Your task to perform on an android device: Search for macbook pro on newegg, select the first entry, add it to the cart, then select checkout. Image 0: 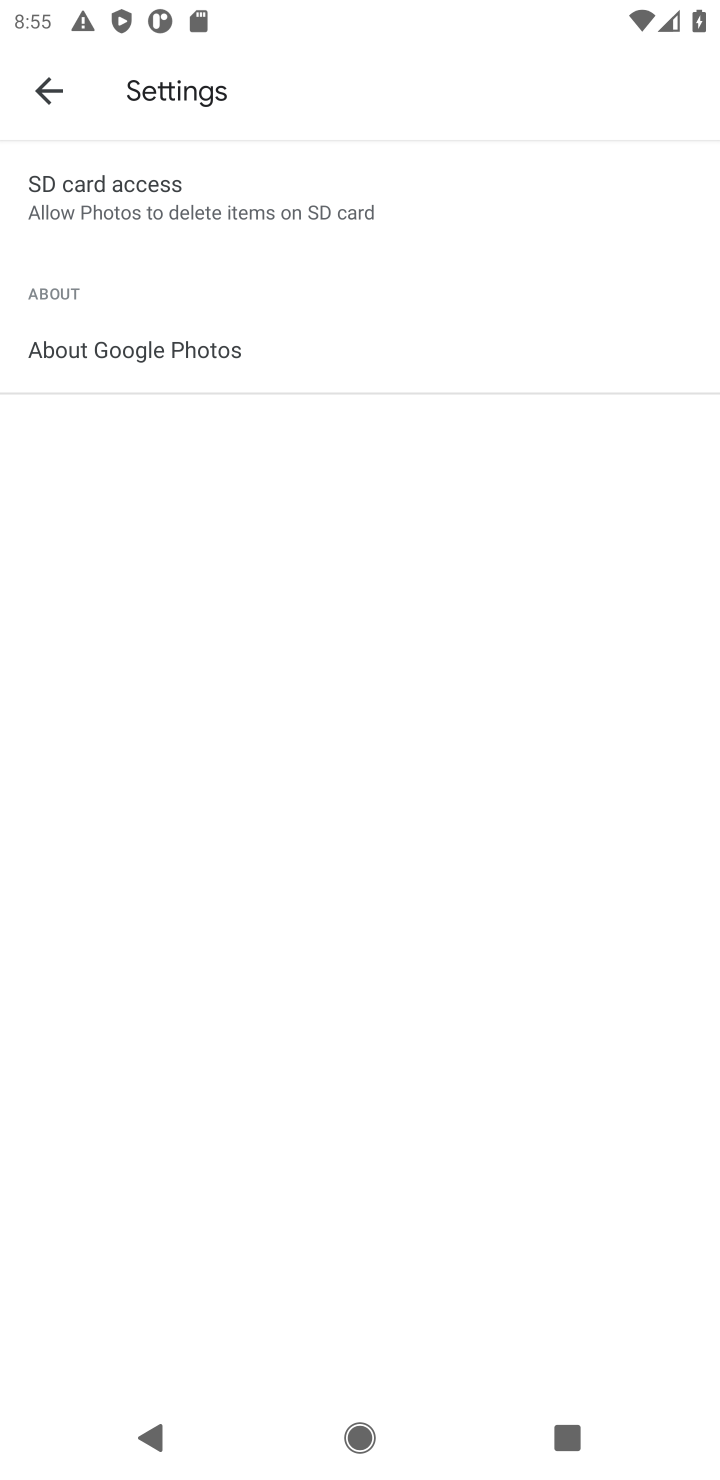
Step 0: press home button
Your task to perform on an android device: Search for macbook pro on newegg, select the first entry, add it to the cart, then select checkout. Image 1: 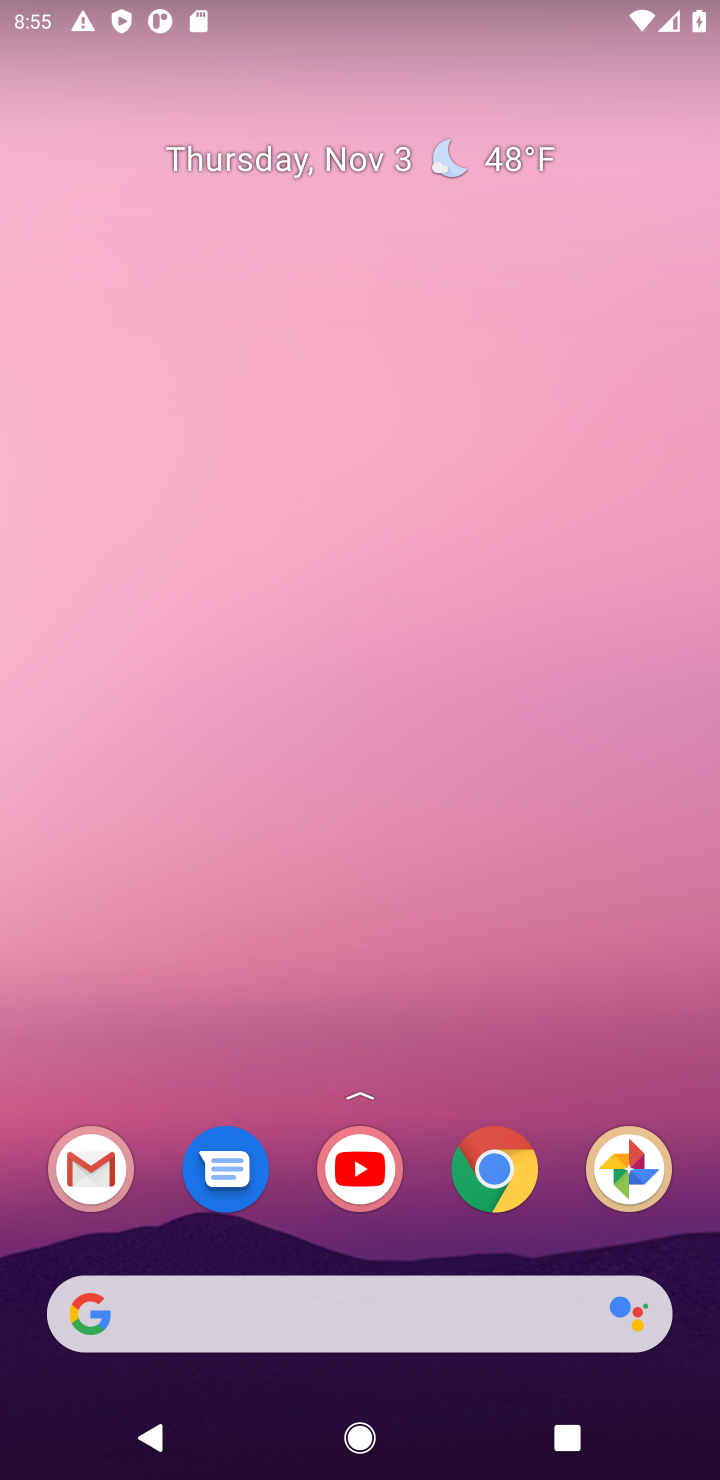
Step 1: drag from (403, 1234) to (487, 258)
Your task to perform on an android device: Search for macbook pro on newegg, select the first entry, add it to the cart, then select checkout. Image 2: 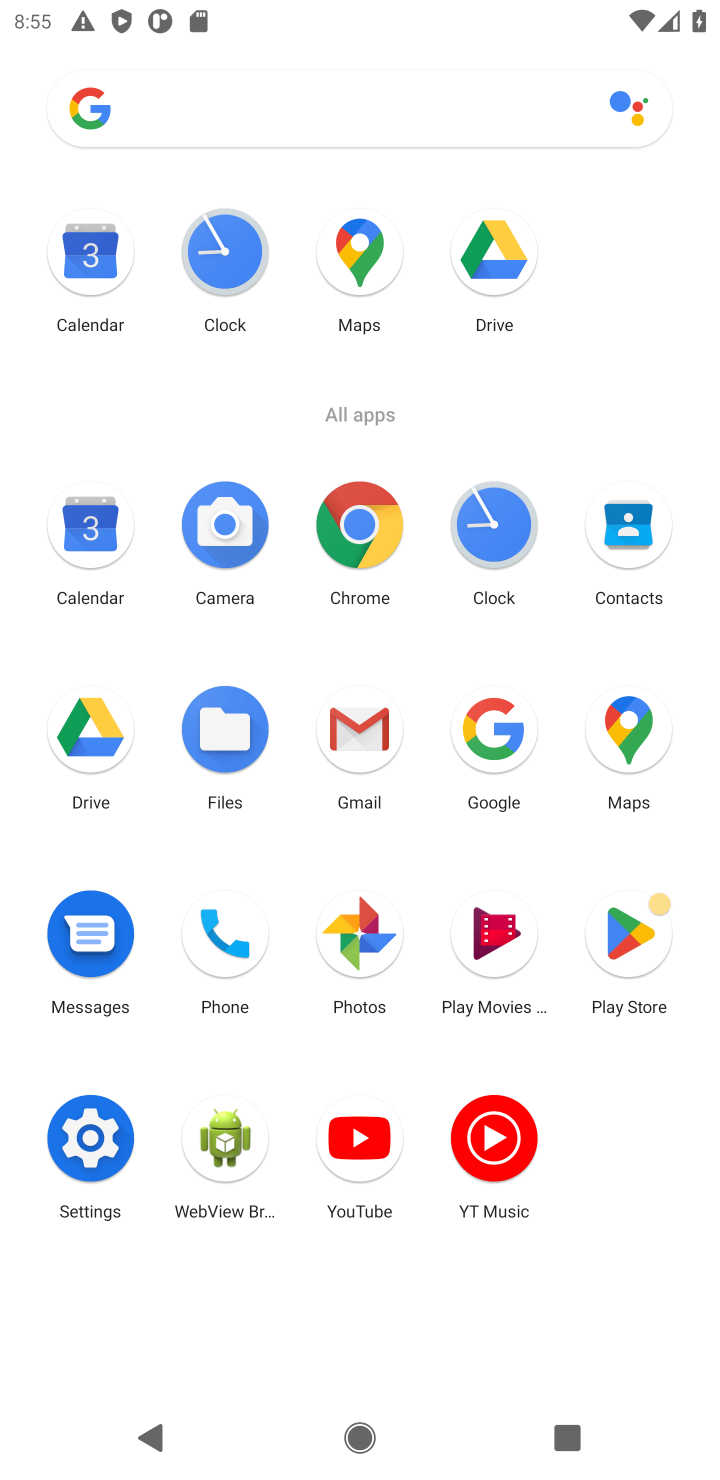
Step 2: click (353, 532)
Your task to perform on an android device: Search for macbook pro on newegg, select the first entry, add it to the cart, then select checkout. Image 3: 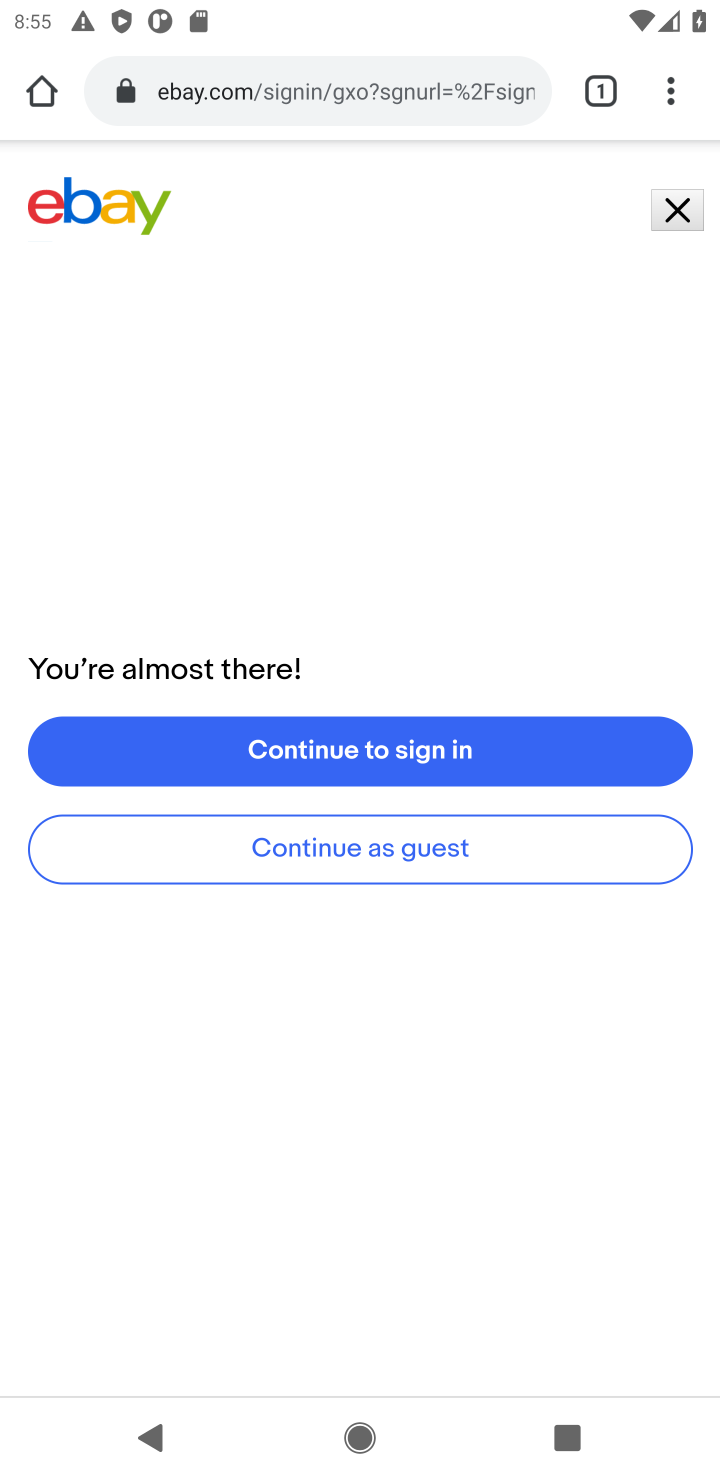
Step 3: click (416, 98)
Your task to perform on an android device: Search for macbook pro on newegg, select the first entry, add it to the cart, then select checkout. Image 4: 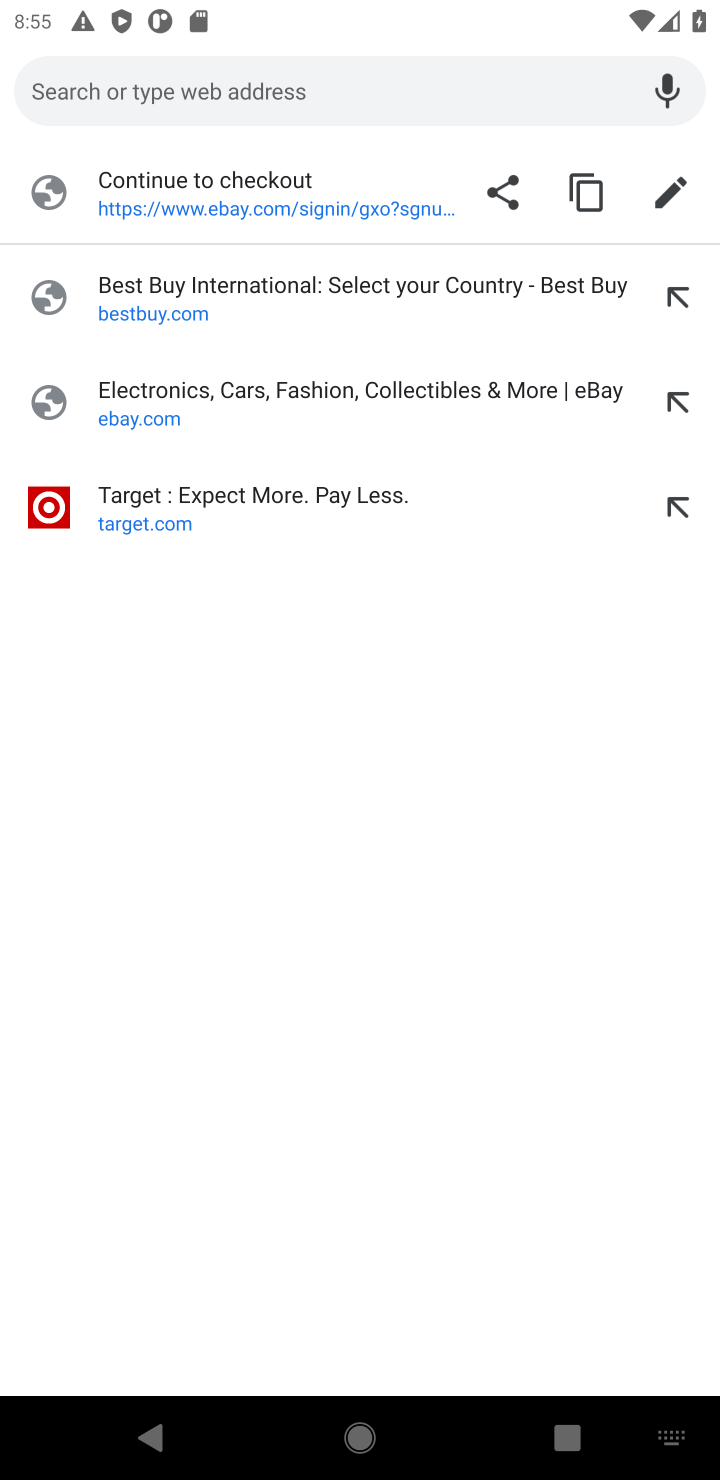
Step 4: type "newegg.com"
Your task to perform on an android device: Search for macbook pro on newegg, select the first entry, add it to the cart, then select checkout. Image 5: 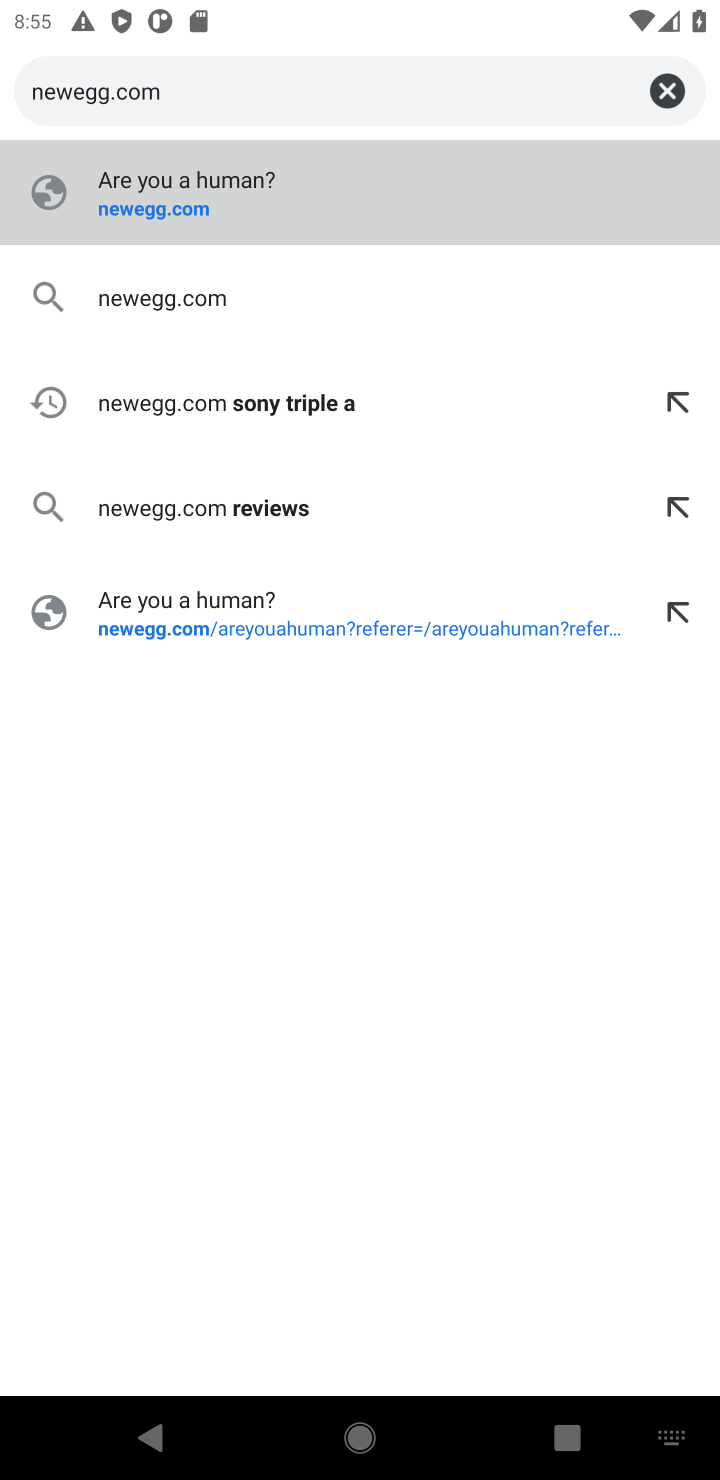
Step 5: press enter
Your task to perform on an android device: Search for macbook pro on newegg, select the first entry, add it to the cart, then select checkout. Image 6: 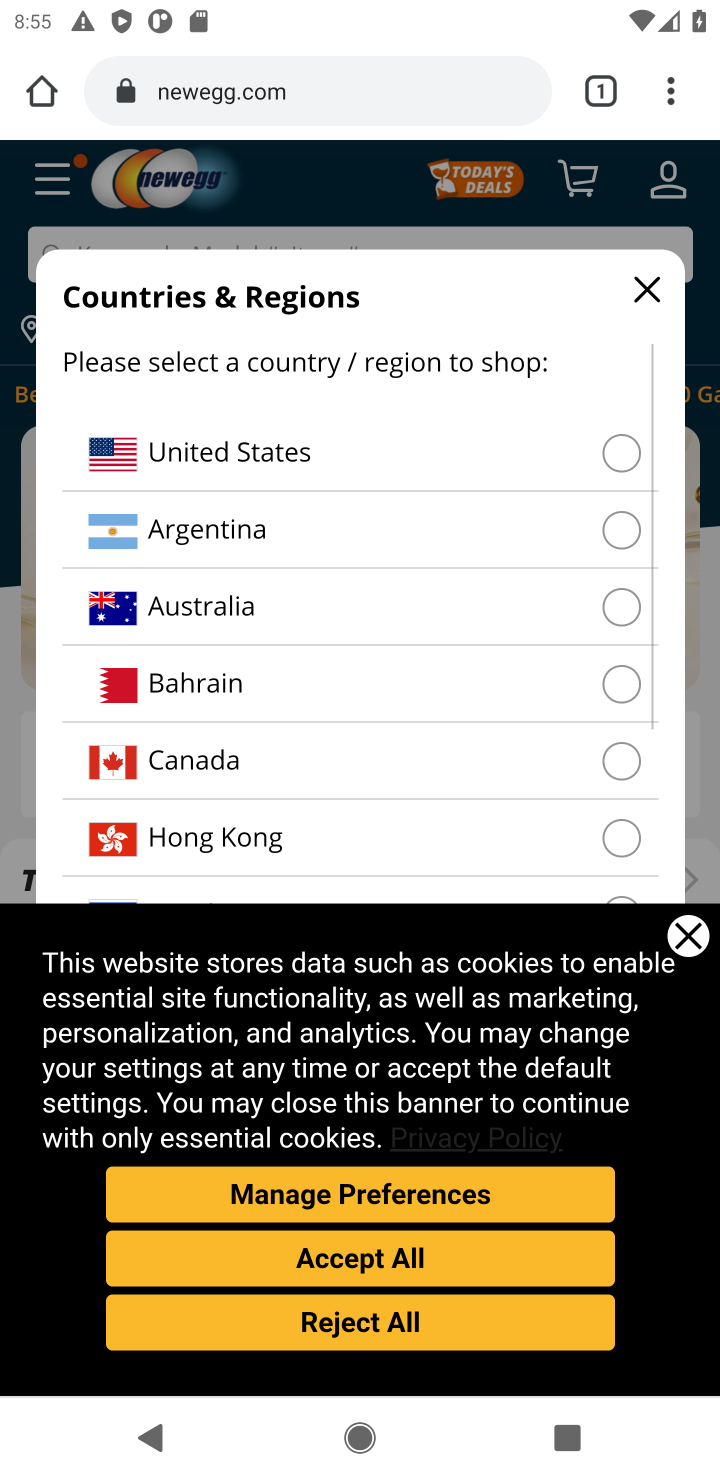
Step 6: click (654, 293)
Your task to perform on an android device: Search for macbook pro on newegg, select the first entry, add it to the cart, then select checkout. Image 7: 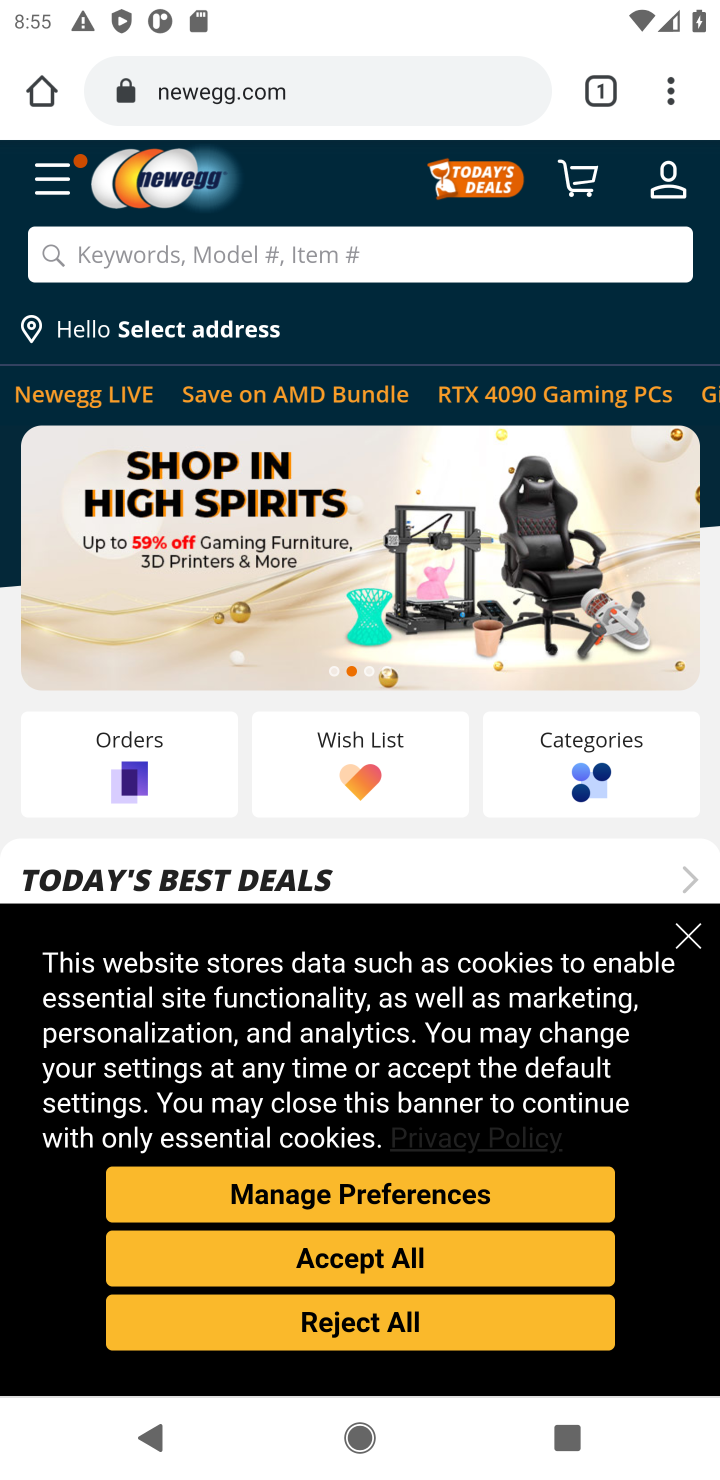
Step 7: click (535, 258)
Your task to perform on an android device: Search for macbook pro on newegg, select the first entry, add it to the cart, then select checkout. Image 8: 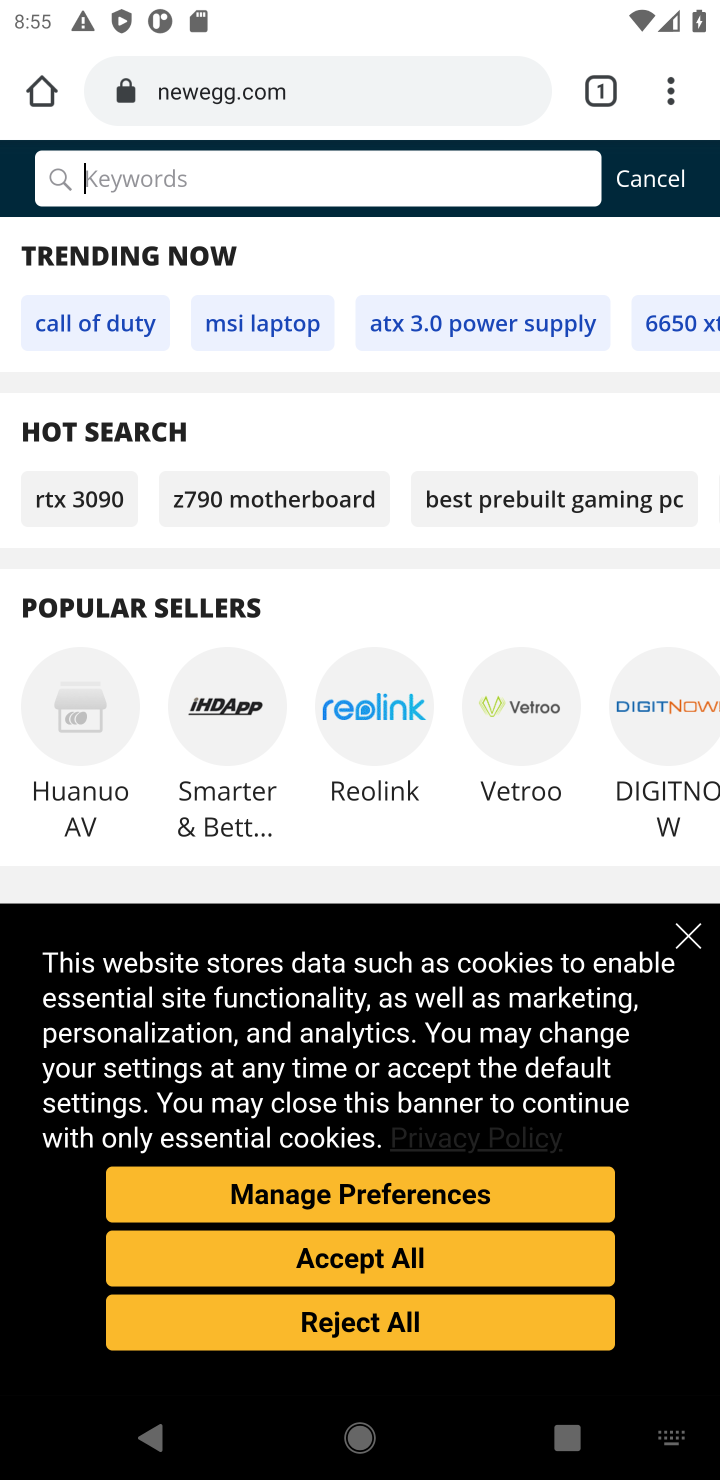
Step 8: type "macbook pro"
Your task to perform on an android device: Search for macbook pro on newegg, select the first entry, add it to the cart, then select checkout. Image 9: 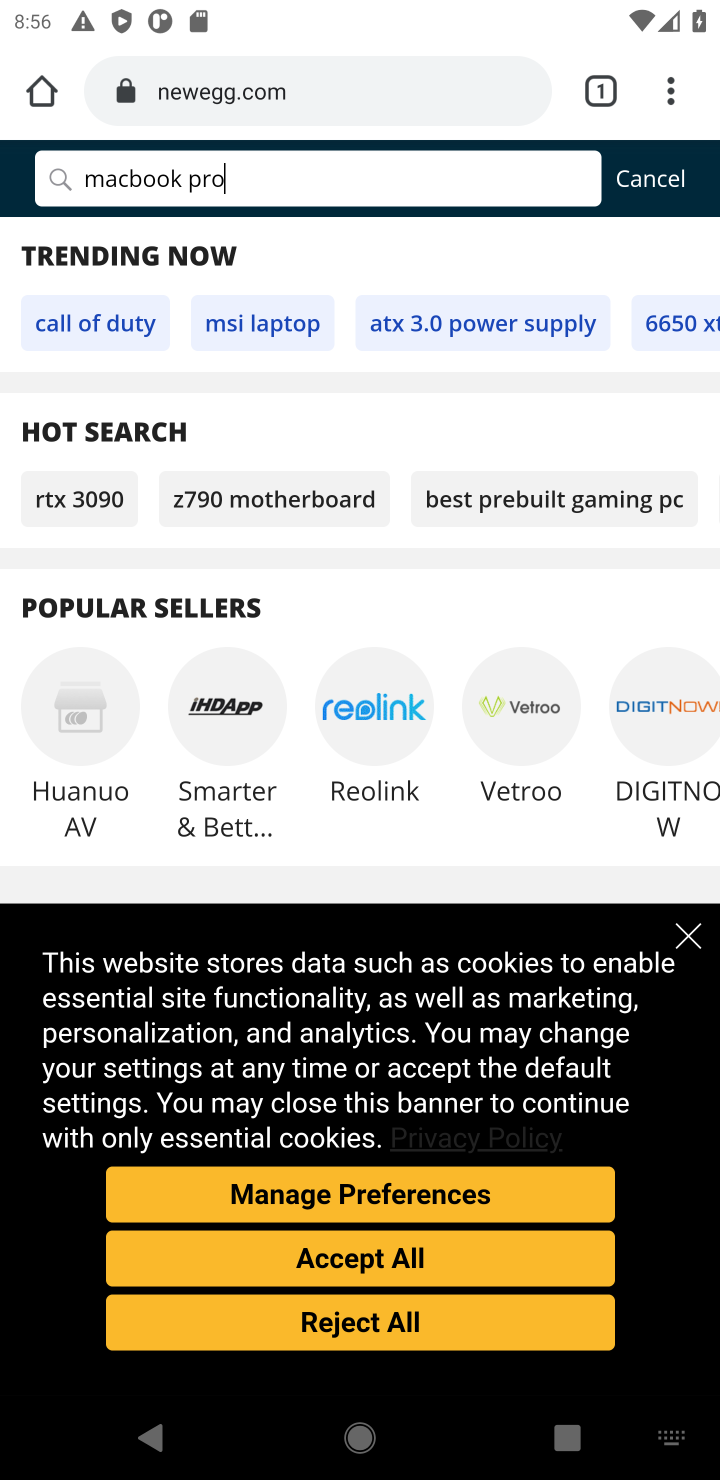
Step 9: press enter
Your task to perform on an android device: Search for macbook pro on newegg, select the first entry, add it to the cart, then select checkout. Image 10: 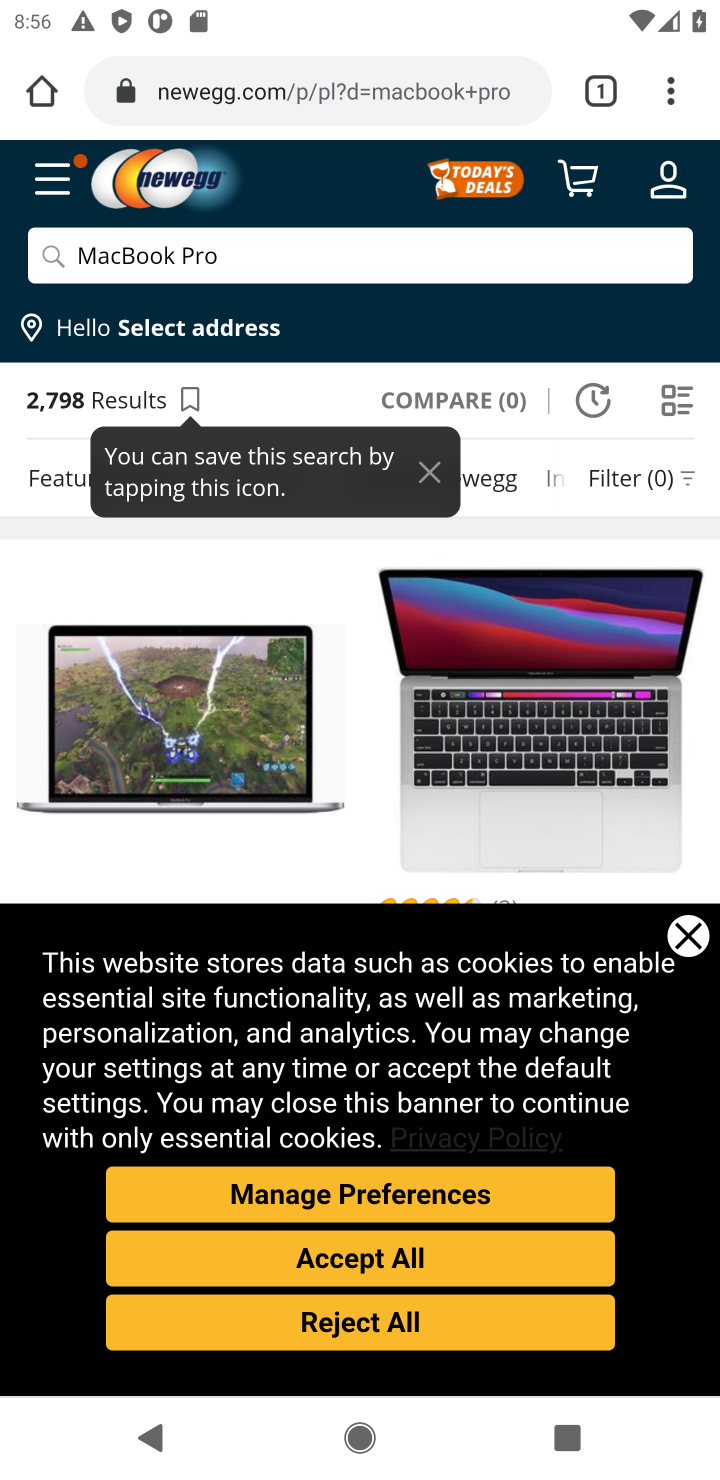
Step 10: drag from (459, 574) to (470, 376)
Your task to perform on an android device: Search for macbook pro on newegg, select the first entry, add it to the cart, then select checkout. Image 11: 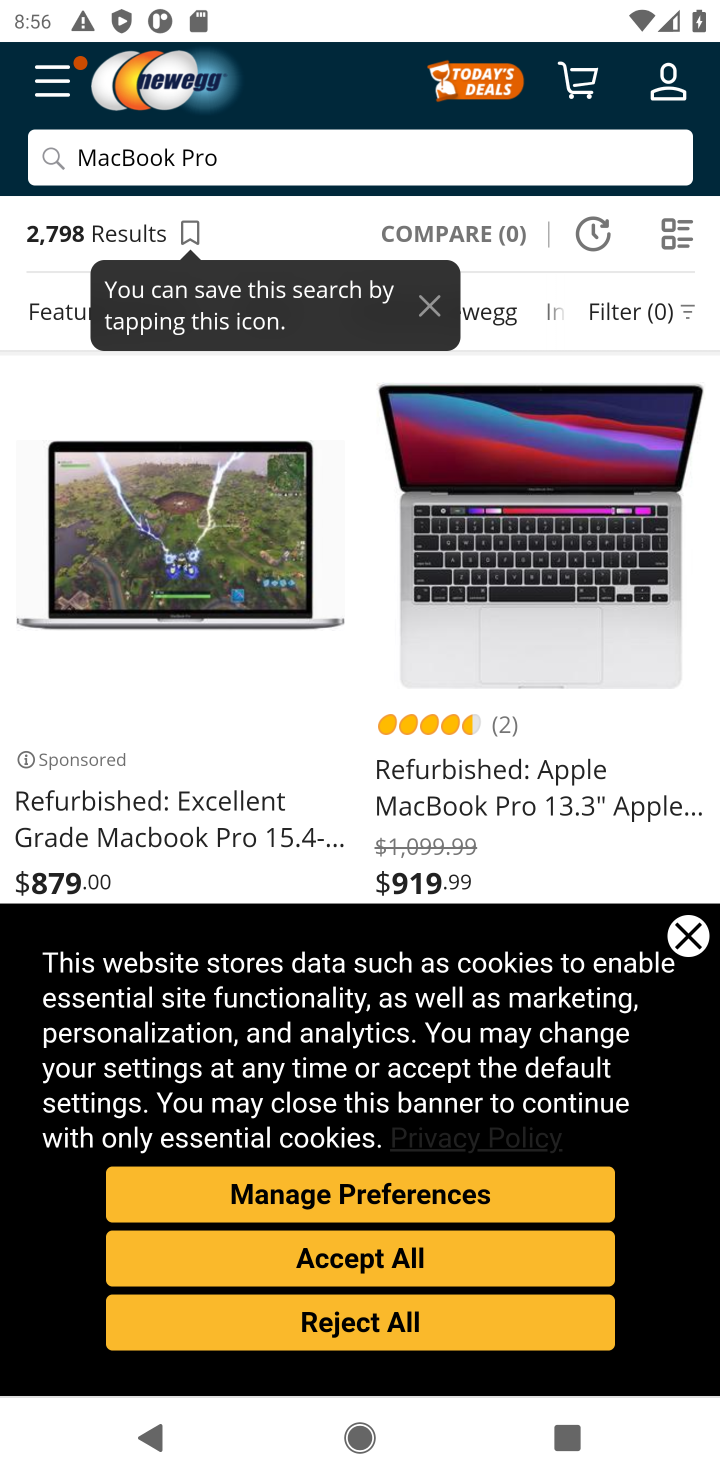
Step 11: click (480, 788)
Your task to perform on an android device: Search for macbook pro on newegg, select the first entry, add it to the cart, then select checkout. Image 12: 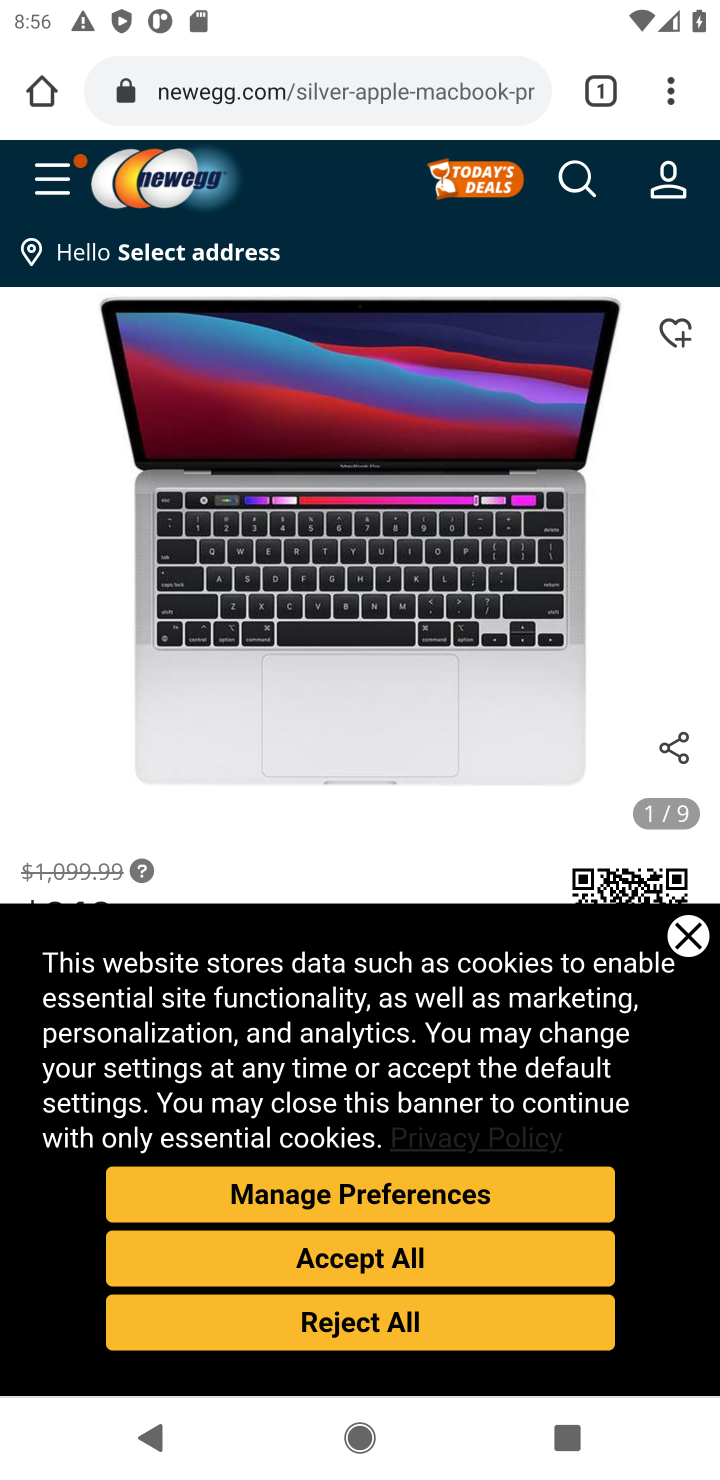
Step 12: click (702, 920)
Your task to perform on an android device: Search for macbook pro on newegg, select the first entry, add it to the cart, then select checkout. Image 13: 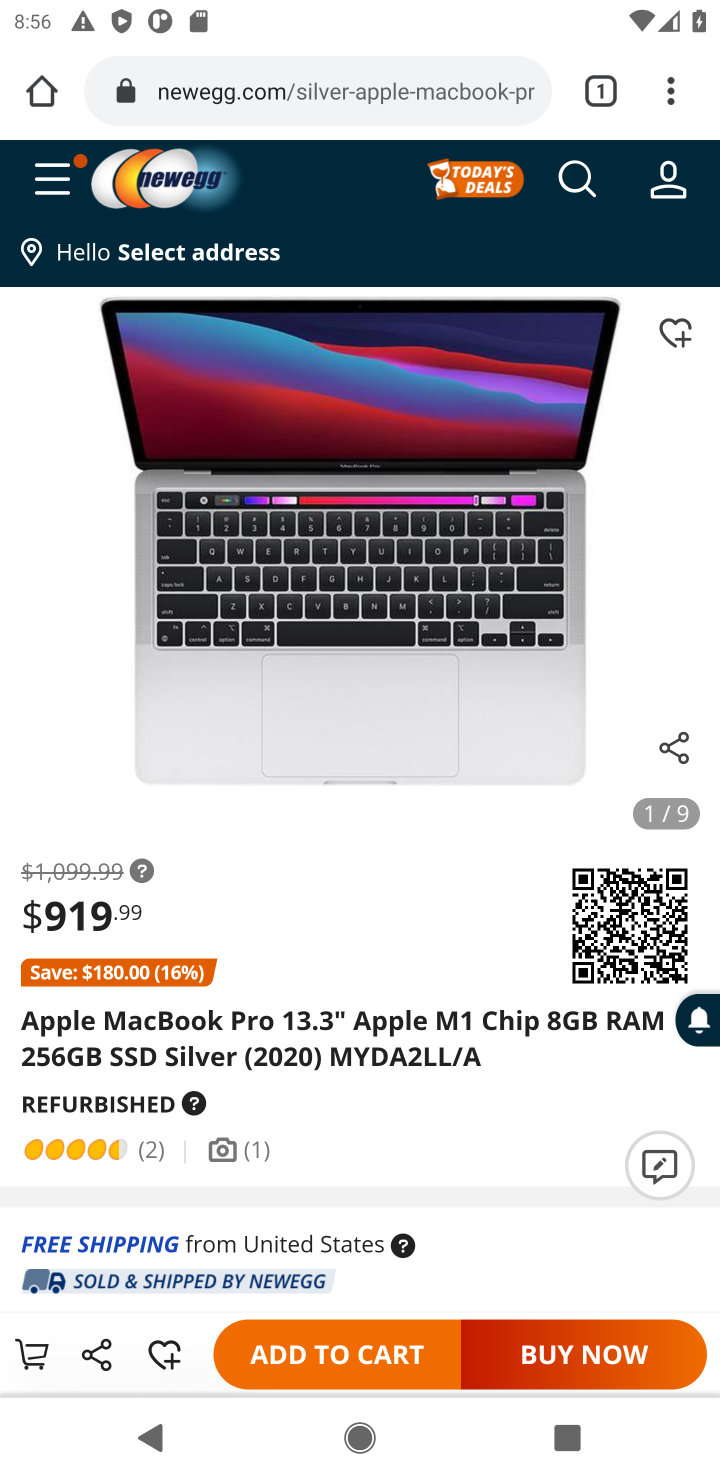
Step 13: click (405, 1320)
Your task to perform on an android device: Search for macbook pro on newegg, select the first entry, add it to the cart, then select checkout. Image 14: 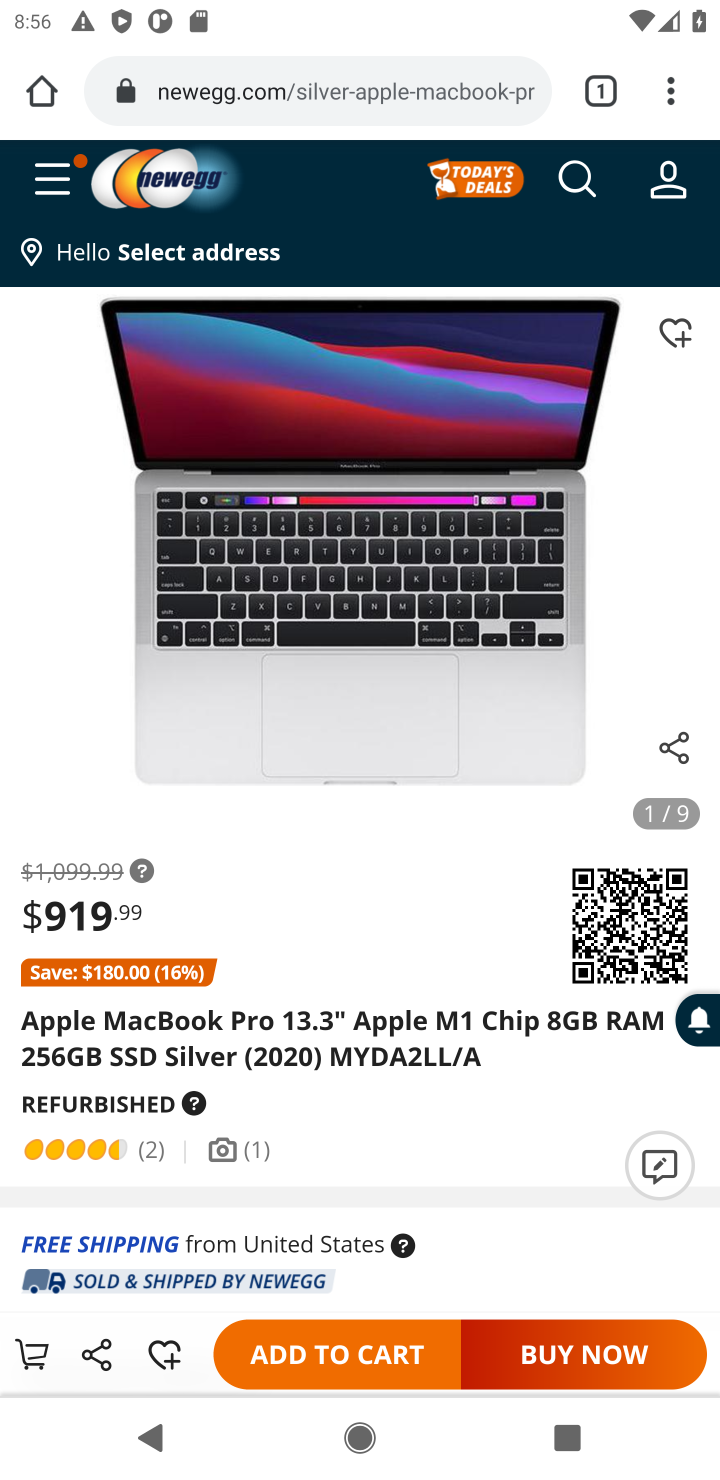
Step 14: click (327, 1369)
Your task to perform on an android device: Search for macbook pro on newegg, select the first entry, add it to the cart, then select checkout. Image 15: 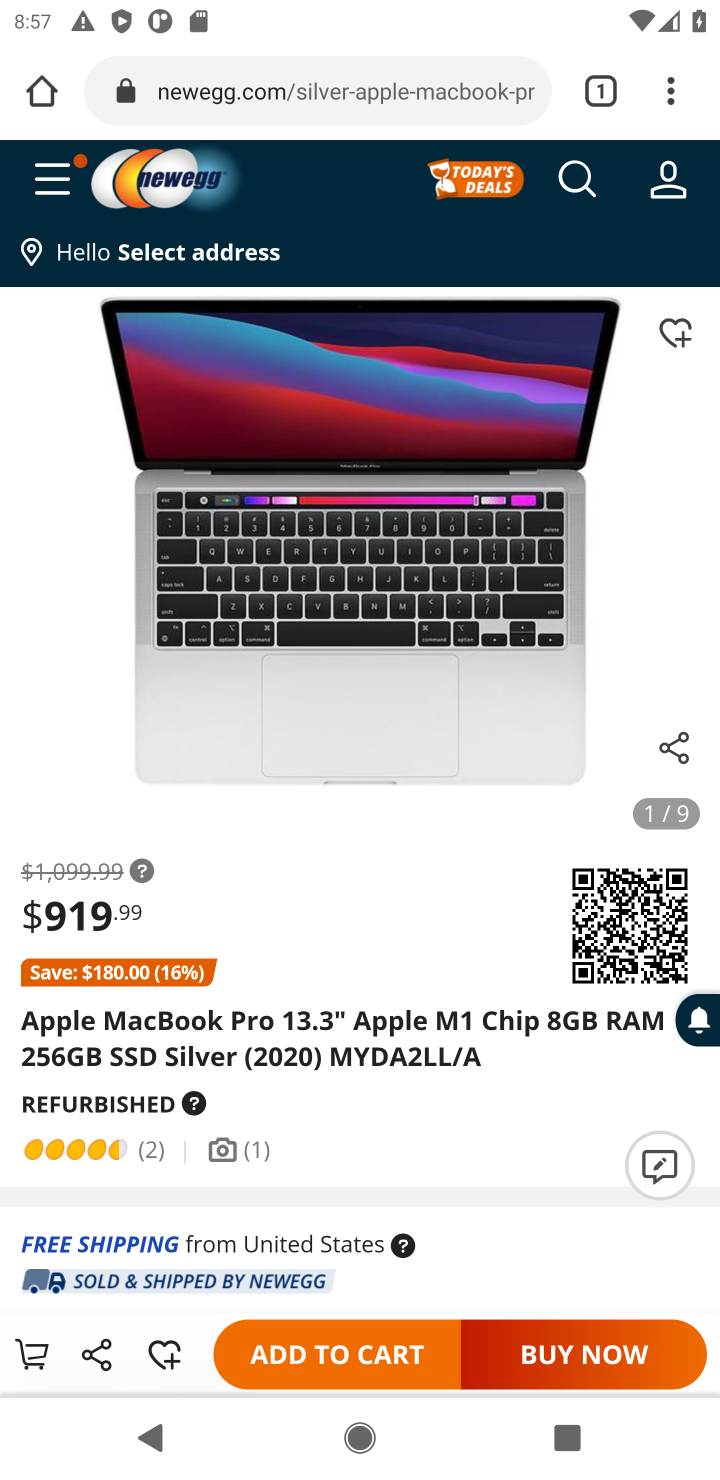
Step 15: click (392, 1351)
Your task to perform on an android device: Search for macbook pro on newegg, select the first entry, add it to the cart, then select checkout. Image 16: 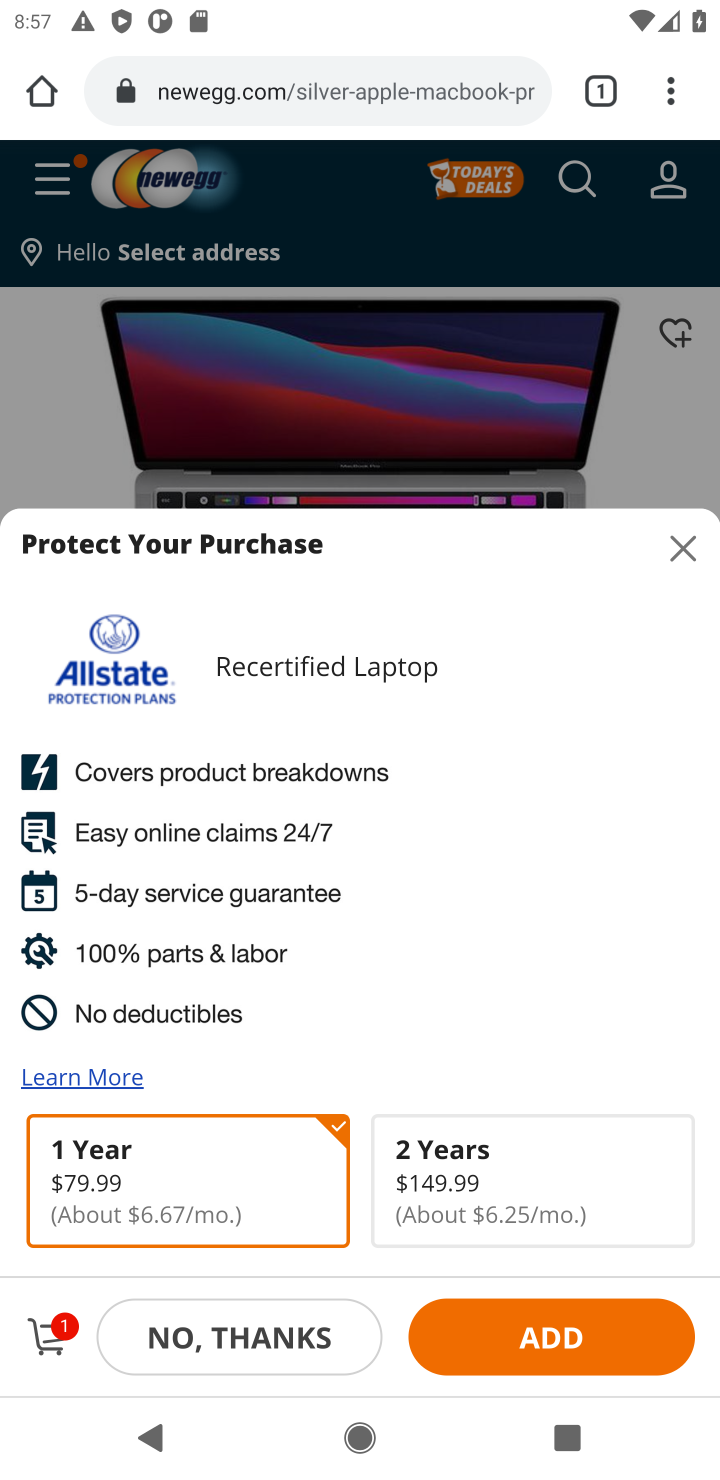
Step 16: click (58, 1338)
Your task to perform on an android device: Search for macbook pro on newegg, select the first entry, add it to the cart, then select checkout. Image 17: 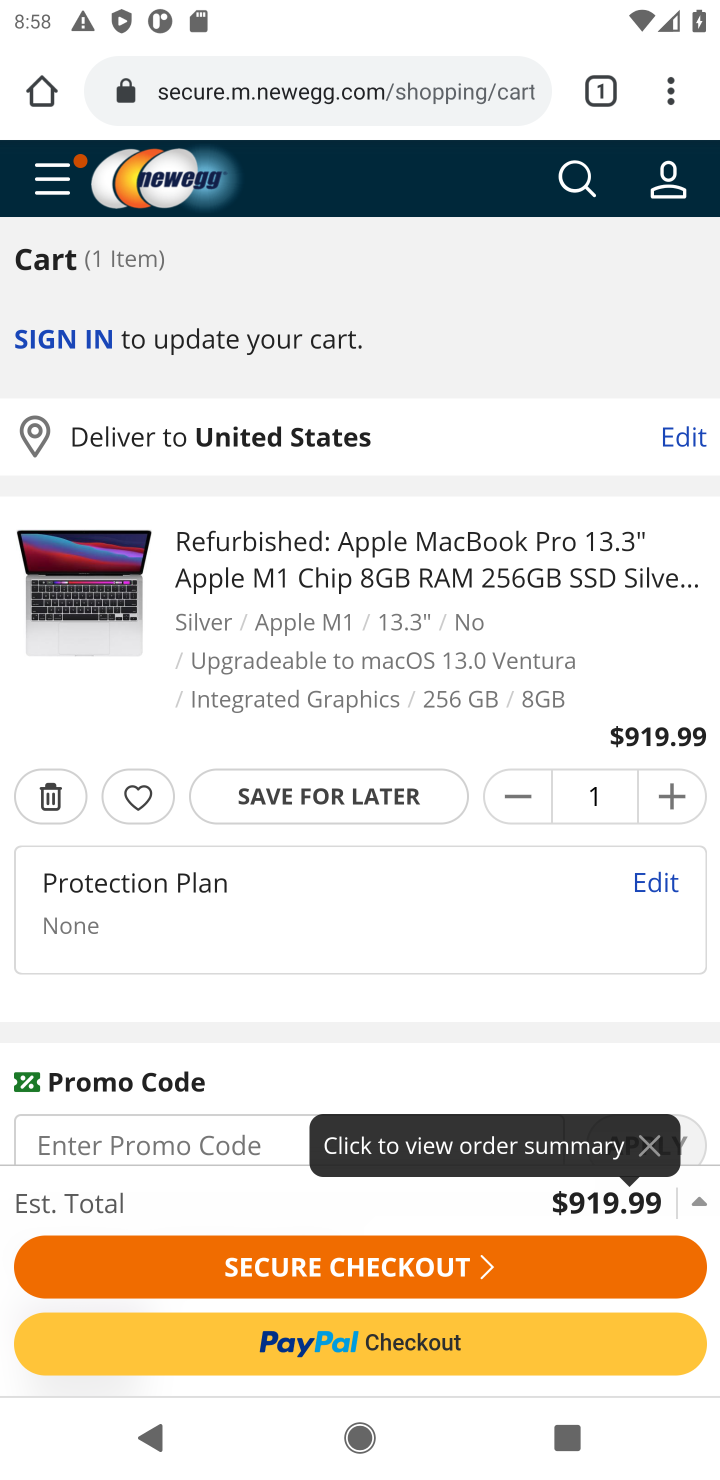
Step 17: click (331, 1272)
Your task to perform on an android device: Search for macbook pro on newegg, select the first entry, add it to the cart, then select checkout. Image 18: 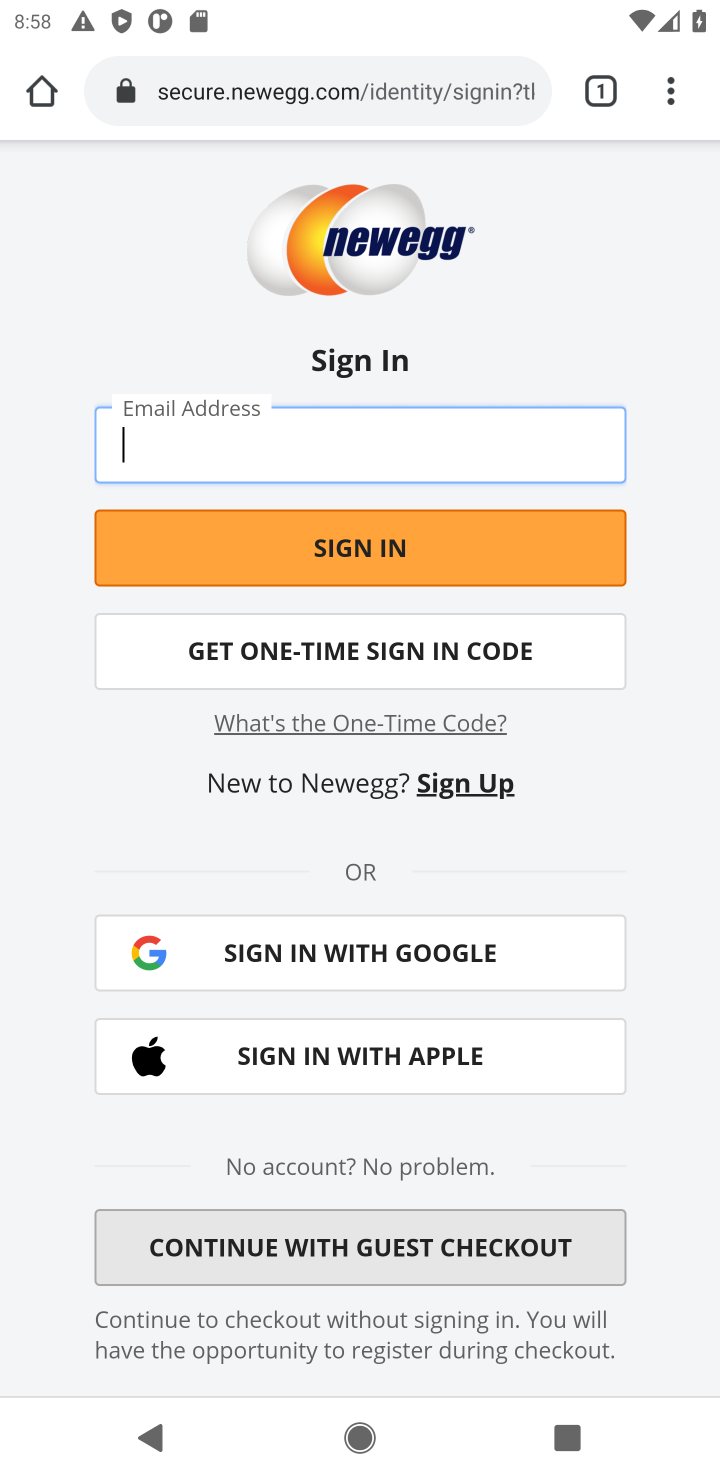
Step 18: task complete